Your task to perform on an android device: toggle priority inbox in the gmail app Image 0: 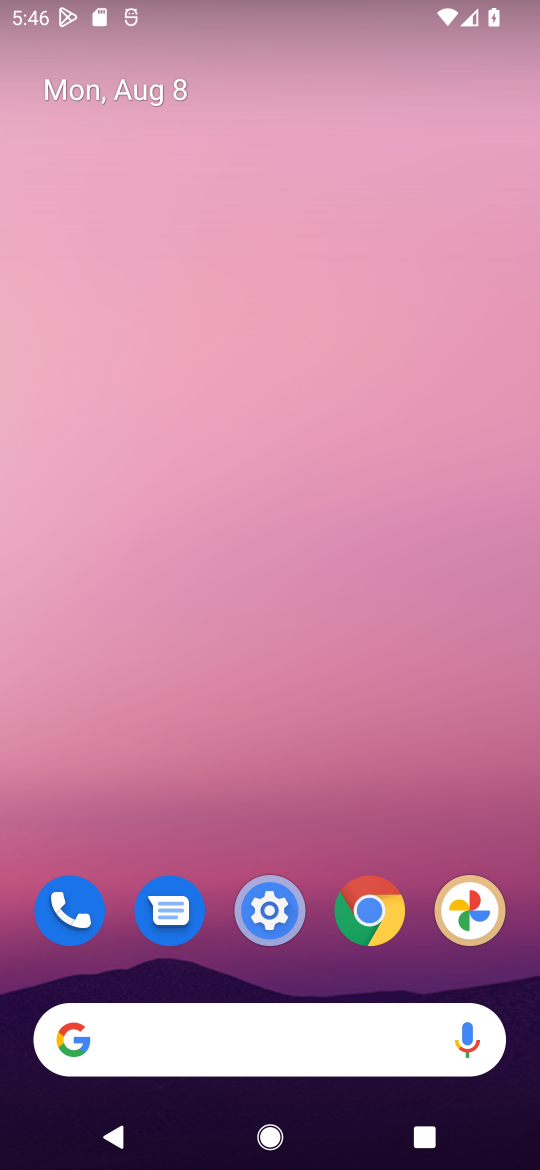
Step 0: drag from (312, 826) to (275, 282)
Your task to perform on an android device: toggle priority inbox in the gmail app Image 1: 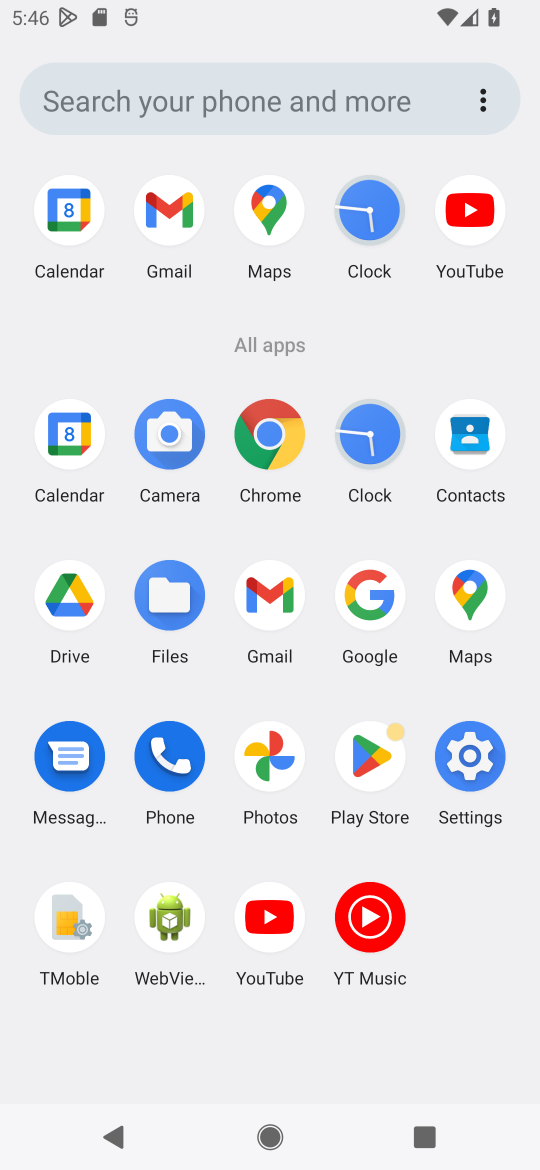
Step 1: click (256, 588)
Your task to perform on an android device: toggle priority inbox in the gmail app Image 2: 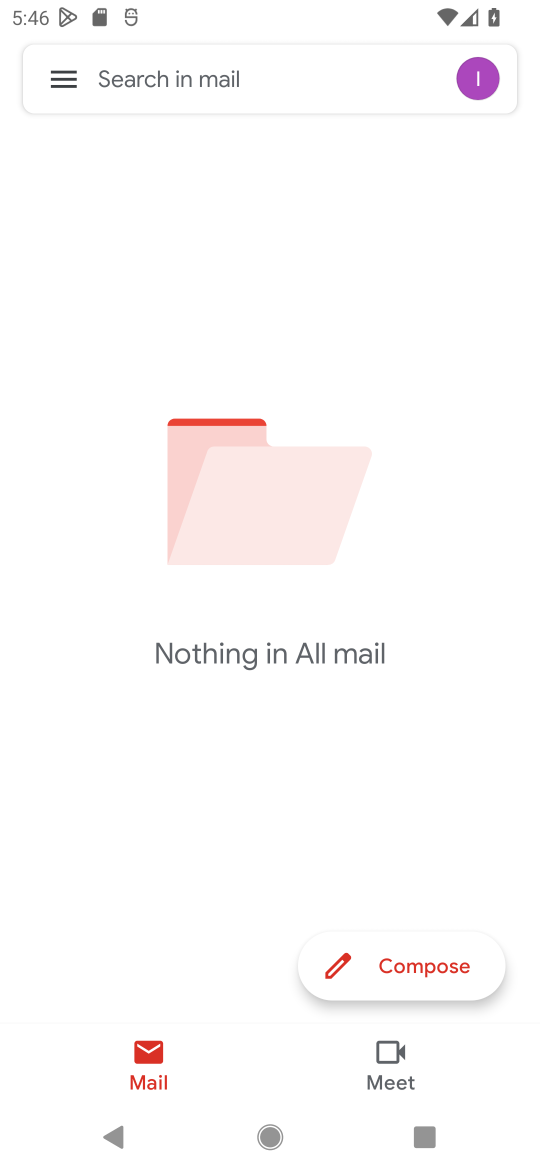
Step 2: click (65, 86)
Your task to perform on an android device: toggle priority inbox in the gmail app Image 3: 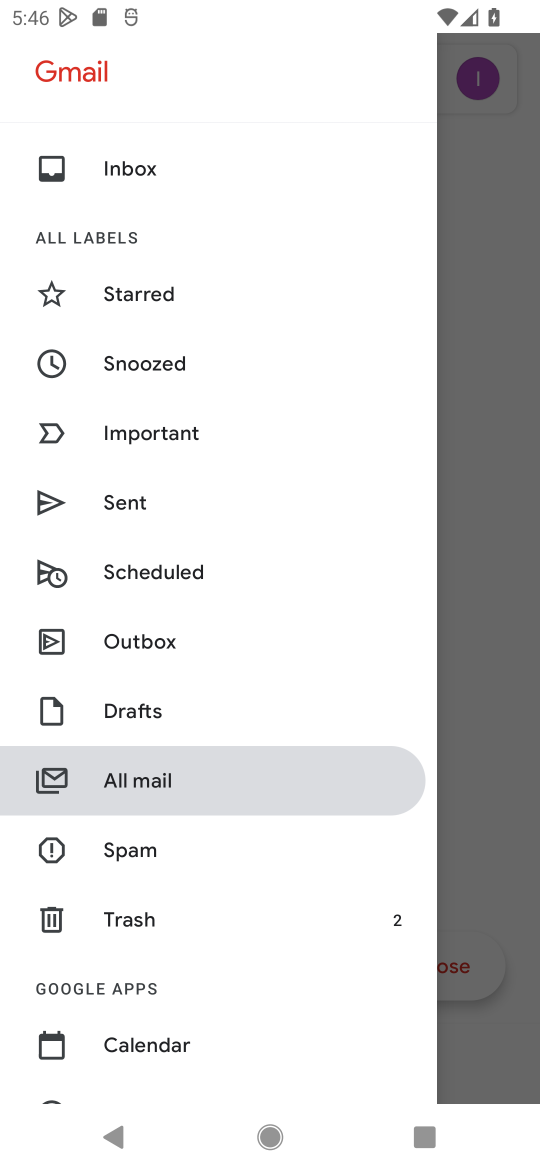
Step 3: click (103, 178)
Your task to perform on an android device: toggle priority inbox in the gmail app Image 4: 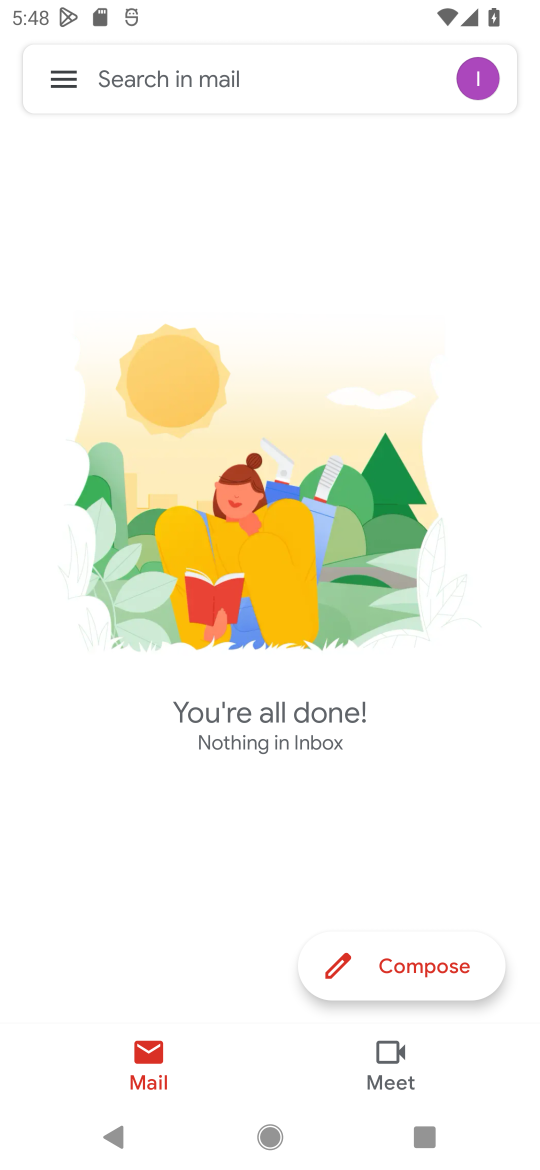
Step 4: task complete